Your task to perform on an android device: Check the news Image 0: 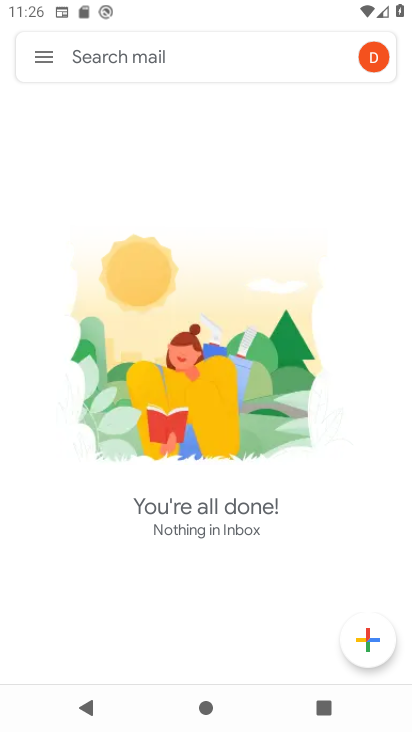
Step 0: press home button
Your task to perform on an android device: Check the news Image 1: 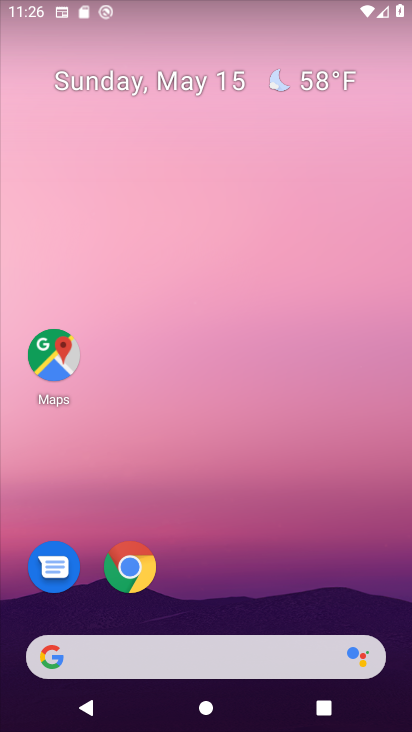
Step 1: click (136, 668)
Your task to perform on an android device: Check the news Image 2: 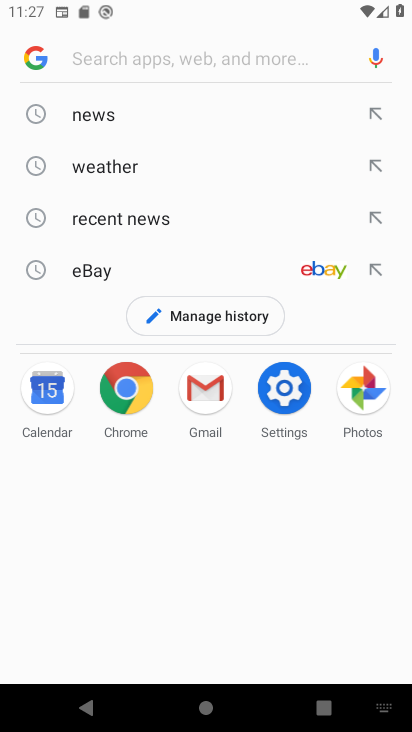
Step 2: click (100, 130)
Your task to perform on an android device: Check the news Image 3: 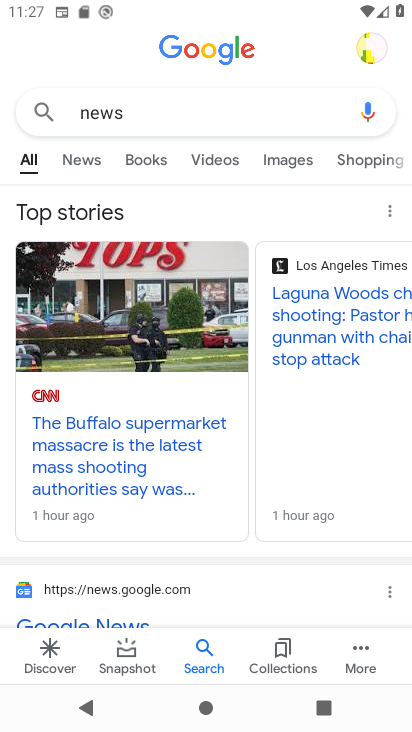
Step 3: task complete